Your task to perform on an android device: open chrome privacy settings Image 0: 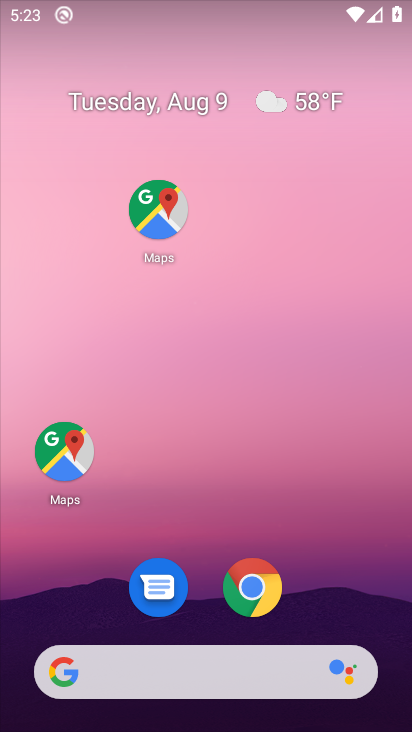
Step 0: drag from (216, 661) to (198, 183)
Your task to perform on an android device: open chrome privacy settings Image 1: 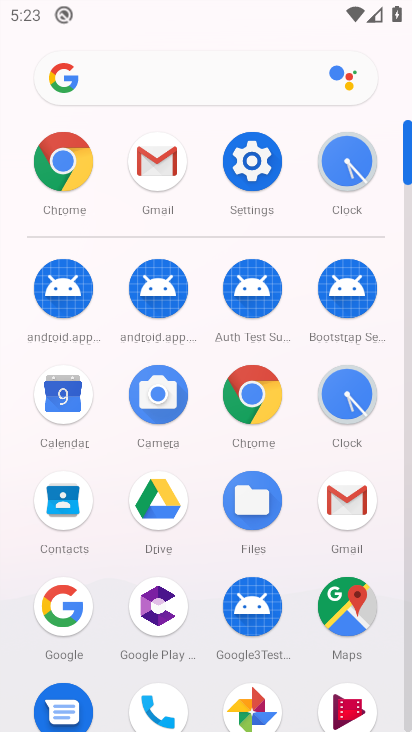
Step 1: click (249, 160)
Your task to perform on an android device: open chrome privacy settings Image 2: 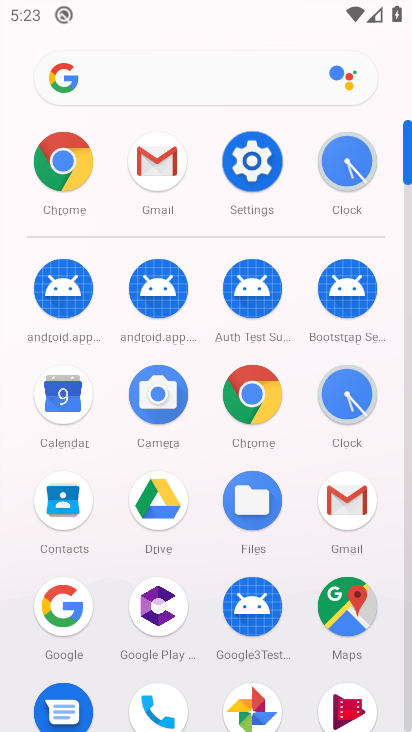
Step 2: click (249, 160)
Your task to perform on an android device: open chrome privacy settings Image 3: 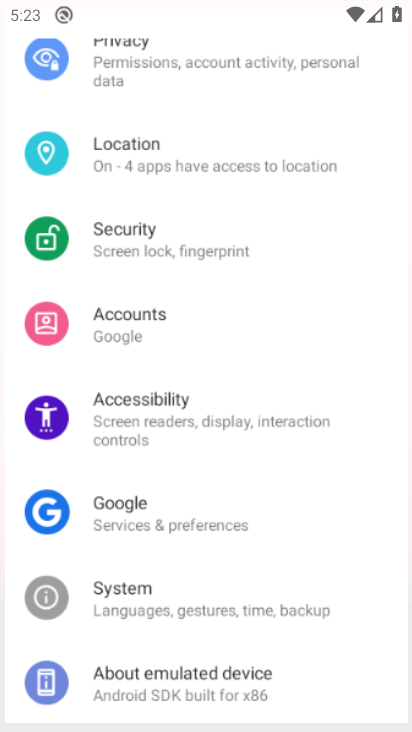
Step 3: click (249, 167)
Your task to perform on an android device: open chrome privacy settings Image 4: 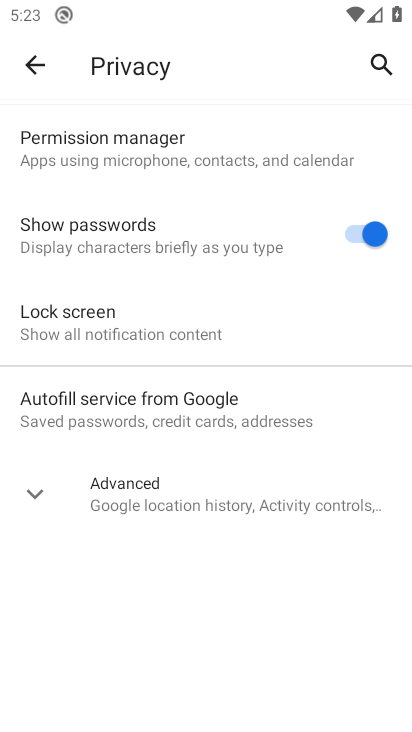
Step 4: click (33, 67)
Your task to perform on an android device: open chrome privacy settings Image 5: 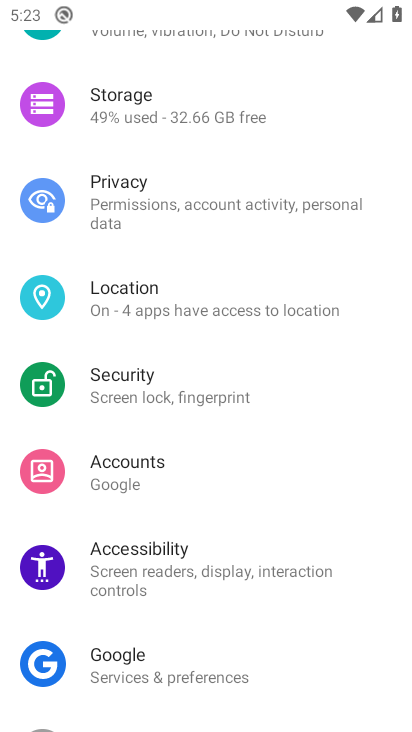
Step 5: click (135, 201)
Your task to perform on an android device: open chrome privacy settings Image 6: 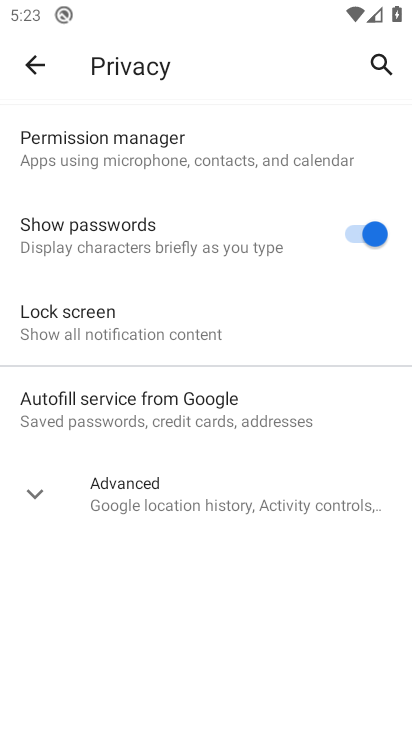
Step 6: click (21, 71)
Your task to perform on an android device: open chrome privacy settings Image 7: 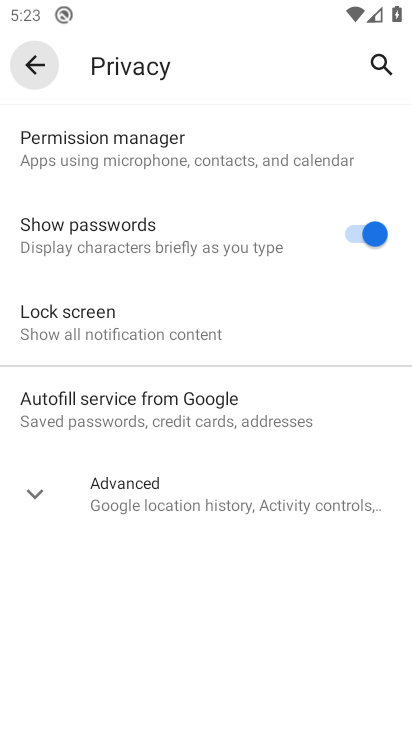
Step 7: click (20, 70)
Your task to perform on an android device: open chrome privacy settings Image 8: 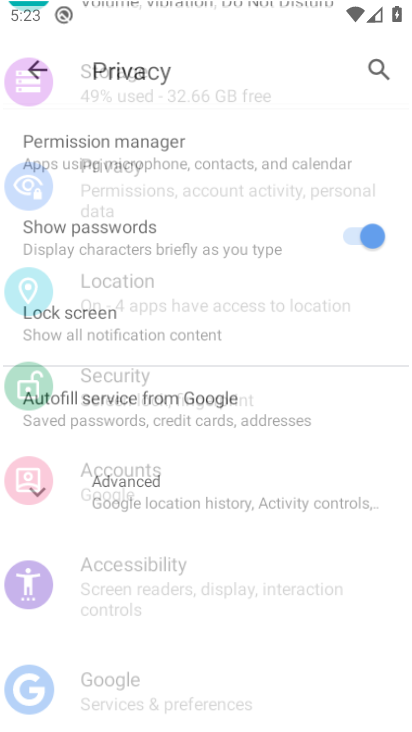
Step 8: click (22, 73)
Your task to perform on an android device: open chrome privacy settings Image 9: 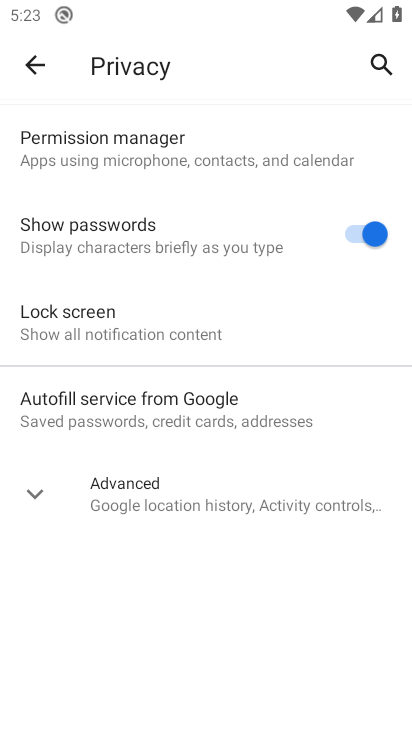
Step 9: click (40, 75)
Your task to perform on an android device: open chrome privacy settings Image 10: 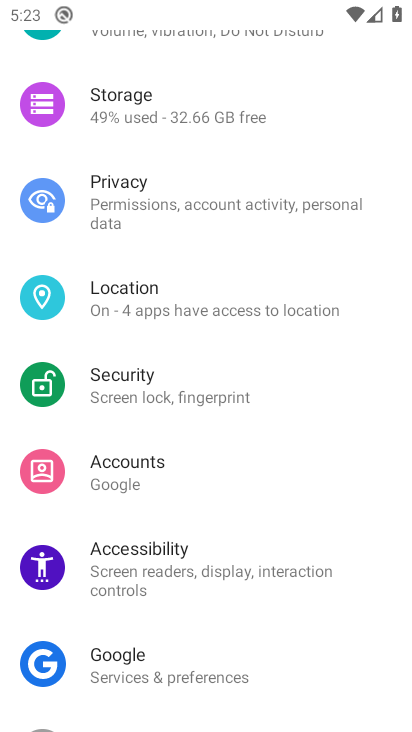
Step 10: drag from (158, 578) to (158, 144)
Your task to perform on an android device: open chrome privacy settings Image 11: 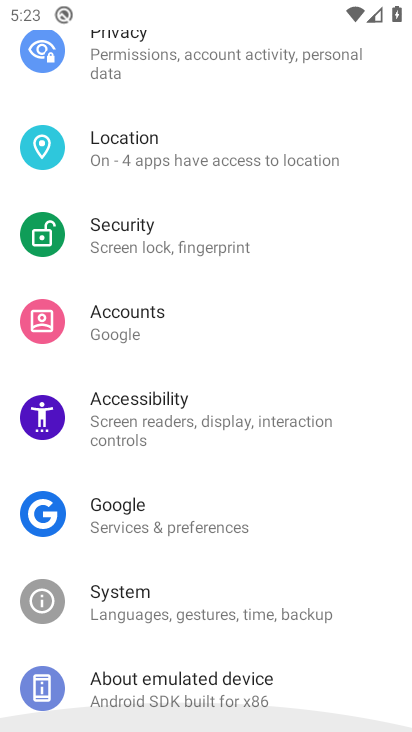
Step 11: drag from (116, 489) to (116, 411)
Your task to perform on an android device: open chrome privacy settings Image 12: 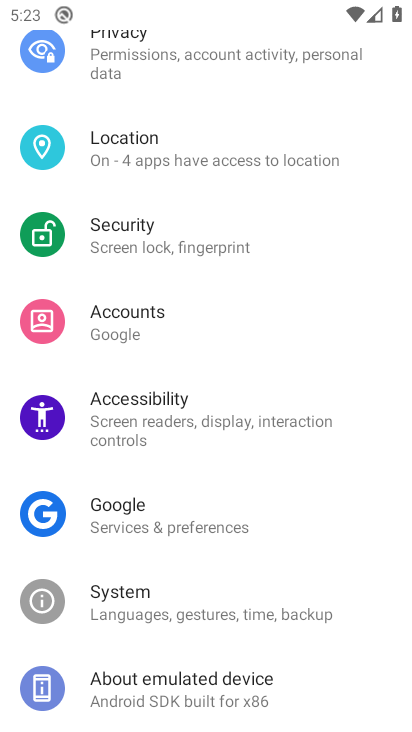
Step 12: drag from (114, 283) to (117, 511)
Your task to perform on an android device: open chrome privacy settings Image 13: 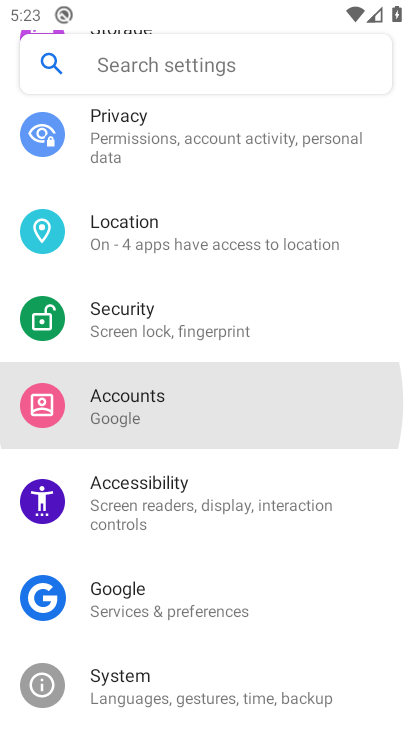
Step 13: drag from (147, 216) to (174, 556)
Your task to perform on an android device: open chrome privacy settings Image 14: 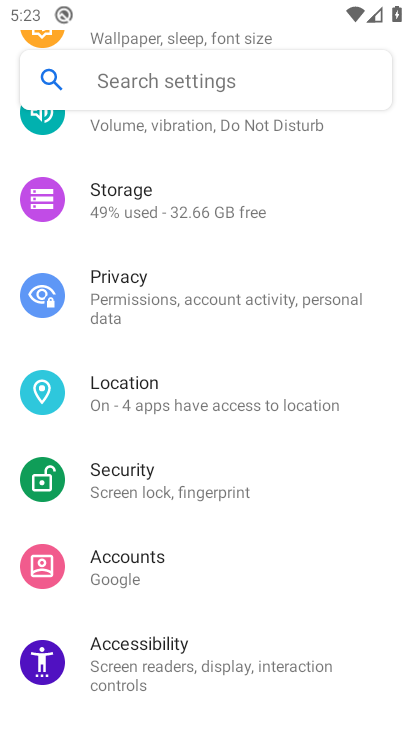
Step 14: drag from (137, 278) to (142, 572)
Your task to perform on an android device: open chrome privacy settings Image 15: 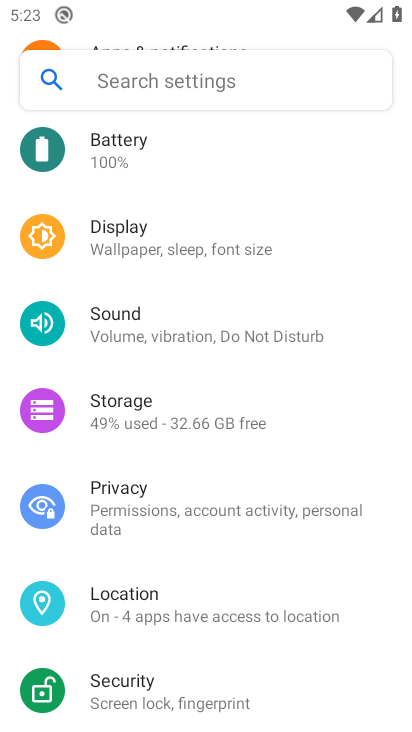
Step 15: click (129, 499)
Your task to perform on an android device: open chrome privacy settings Image 16: 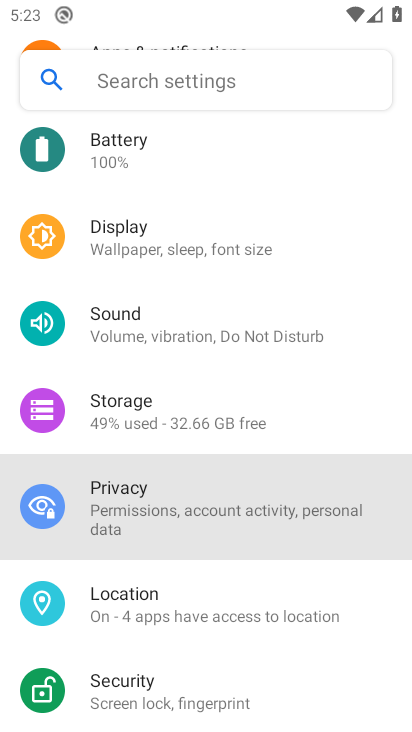
Step 16: click (130, 497)
Your task to perform on an android device: open chrome privacy settings Image 17: 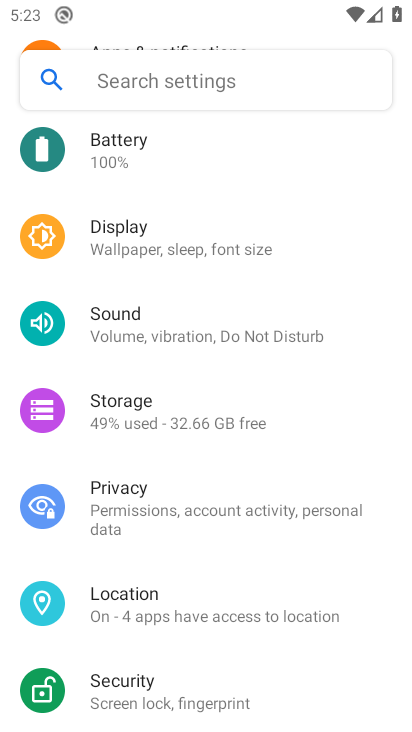
Step 17: click (139, 502)
Your task to perform on an android device: open chrome privacy settings Image 18: 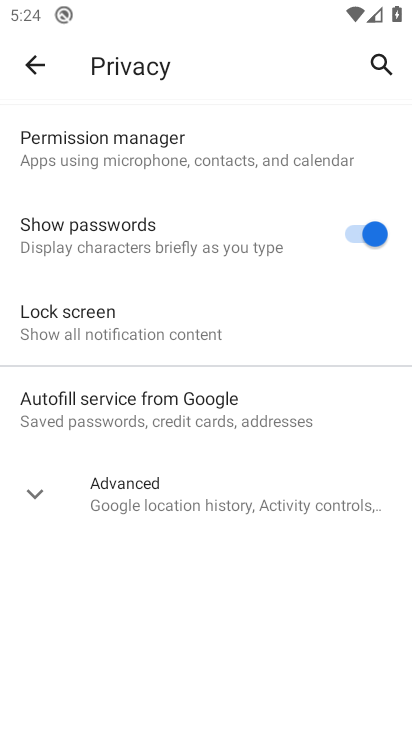
Step 18: task complete